Your task to perform on an android device: delete the emails in spam in the gmail app Image 0: 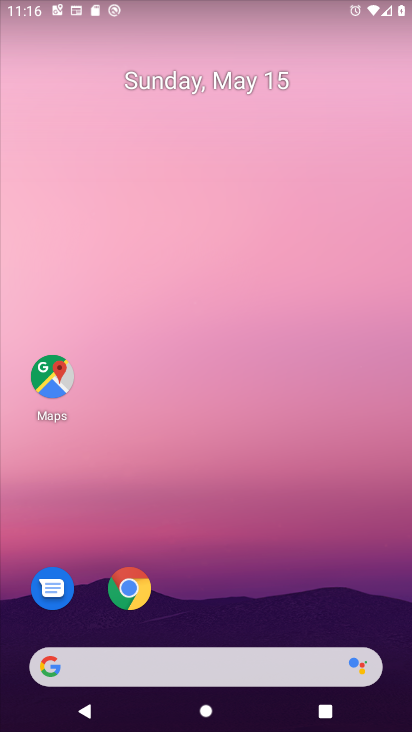
Step 0: drag from (239, 591) to (245, 88)
Your task to perform on an android device: delete the emails in spam in the gmail app Image 1: 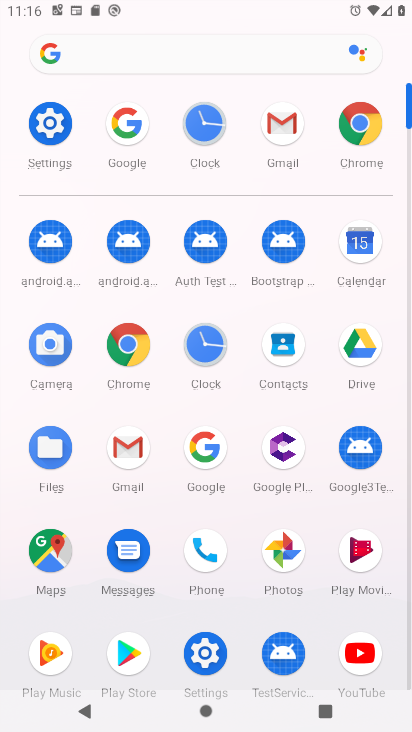
Step 1: click (291, 124)
Your task to perform on an android device: delete the emails in spam in the gmail app Image 2: 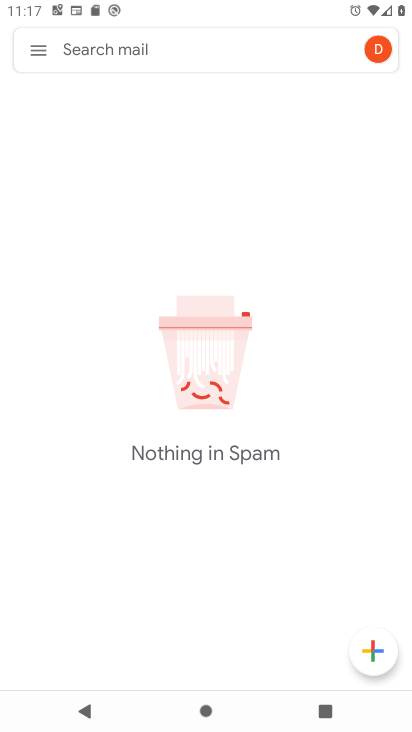
Step 2: task complete